Your task to perform on an android device: add a contact Image 0: 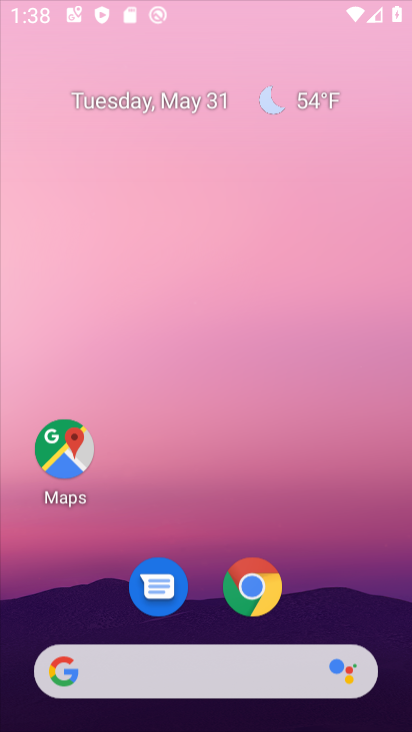
Step 0: click (266, 92)
Your task to perform on an android device: add a contact Image 1: 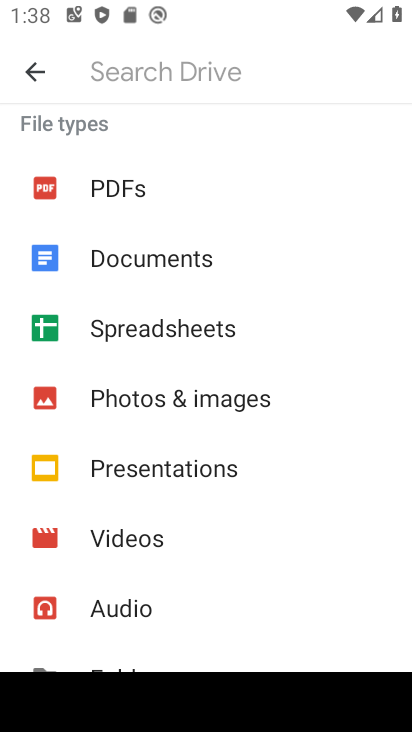
Step 1: press home button
Your task to perform on an android device: add a contact Image 2: 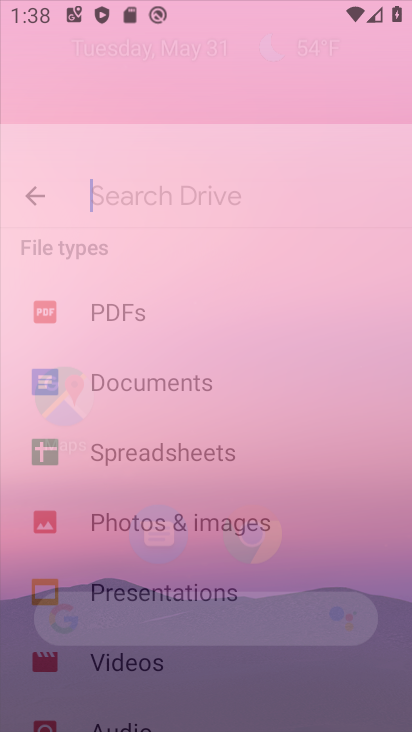
Step 2: drag from (188, 622) to (192, 207)
Your task to perform on an android device: add a contact Image 3: 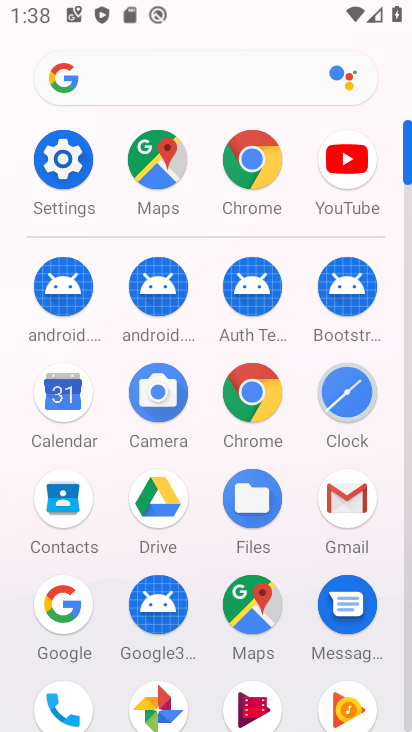
Step 3: drag from (213, 658) to (205, 232)
Your task to perform on an android device: add a contact Image 4: 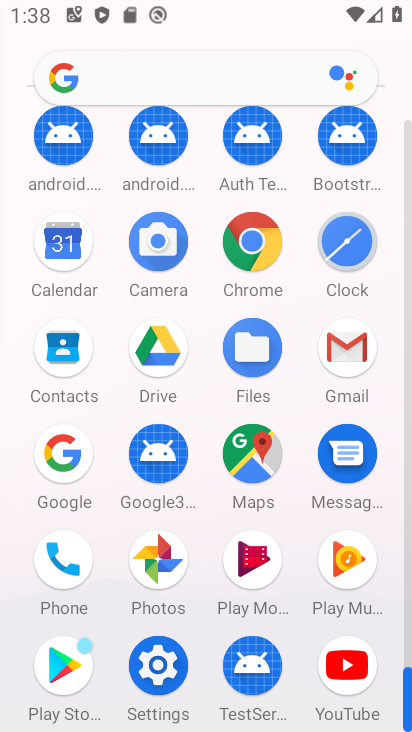
Step 4: drag from (197, 183) to (206, 651)
Your task to perform on an android device: add a contact Image 5: 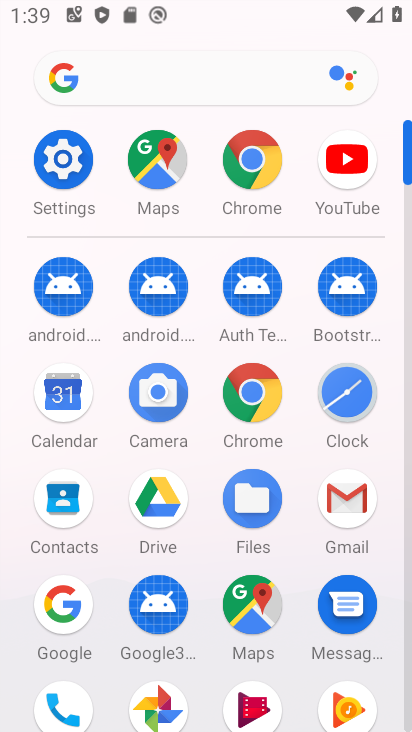
Step 5: drag from (202, 464) to (210, 139)
Your task to perform on an android device: add a contact Image 6: 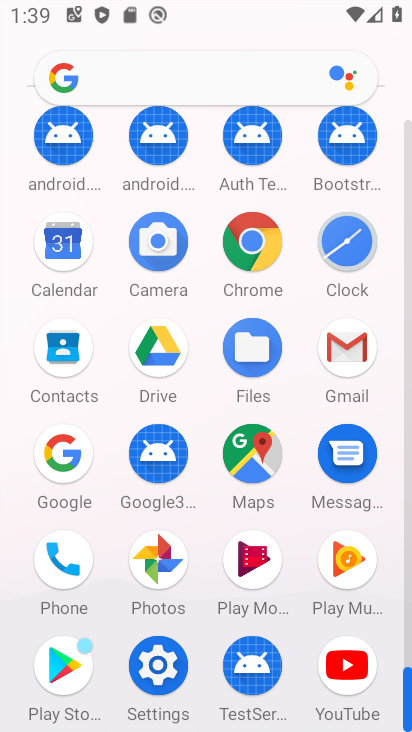
Step 6: click (57, 334)
Your task to perform on an android device: add a contact Image 7: 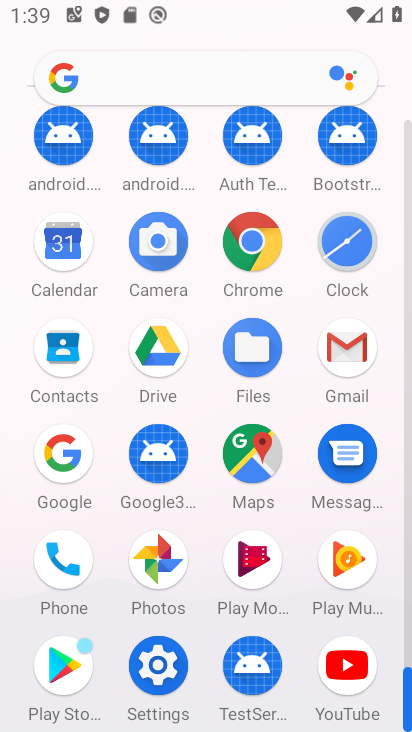
Step 7: click (57, 334)
Your task to perform on an android device: add a contact Image 8: 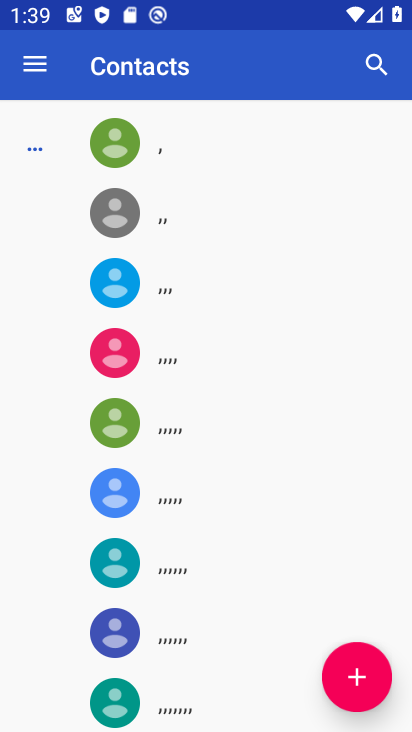
Step 8: click (372, 658)
Your task to perform on an android device: add a contact Image 9: 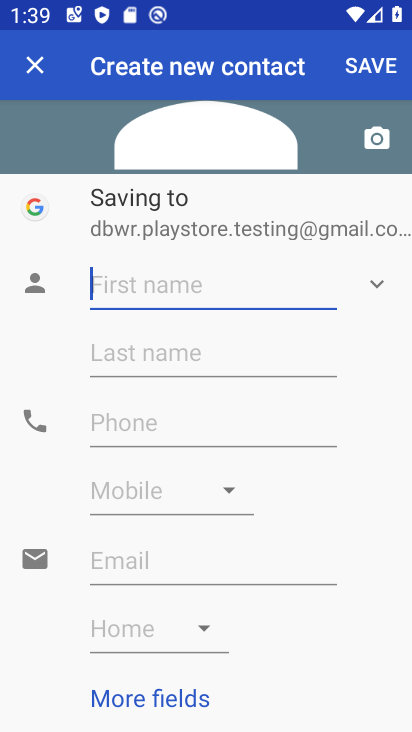
Step 9: type "contact"
Your task to perform on an android device: add a contact Image 10: 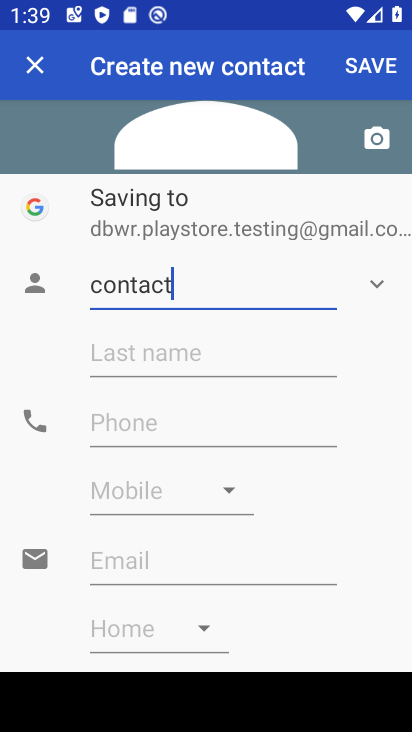
Step 10: type ""
Your task to perform on an android device: add a contact Image 11: 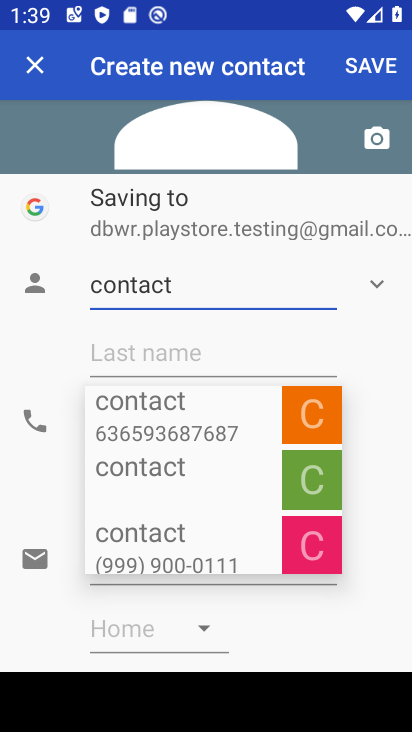
Step 11: click (357, 64)
Your task to perform on an android device: add a contact Image 12: 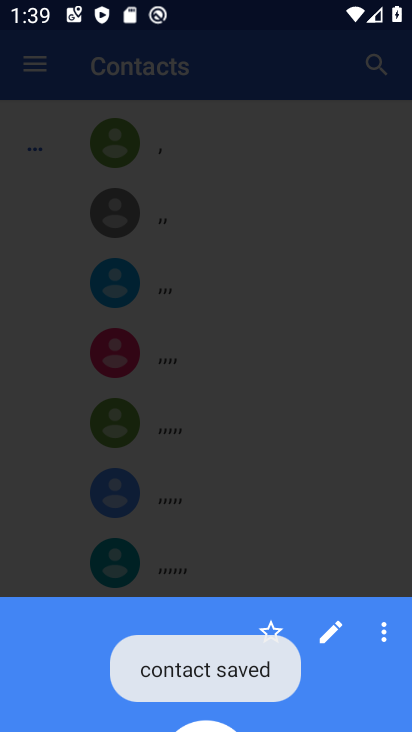
Step 12: task complete